Your task to perform on an android device: find which apps use the phone's location Image 0: 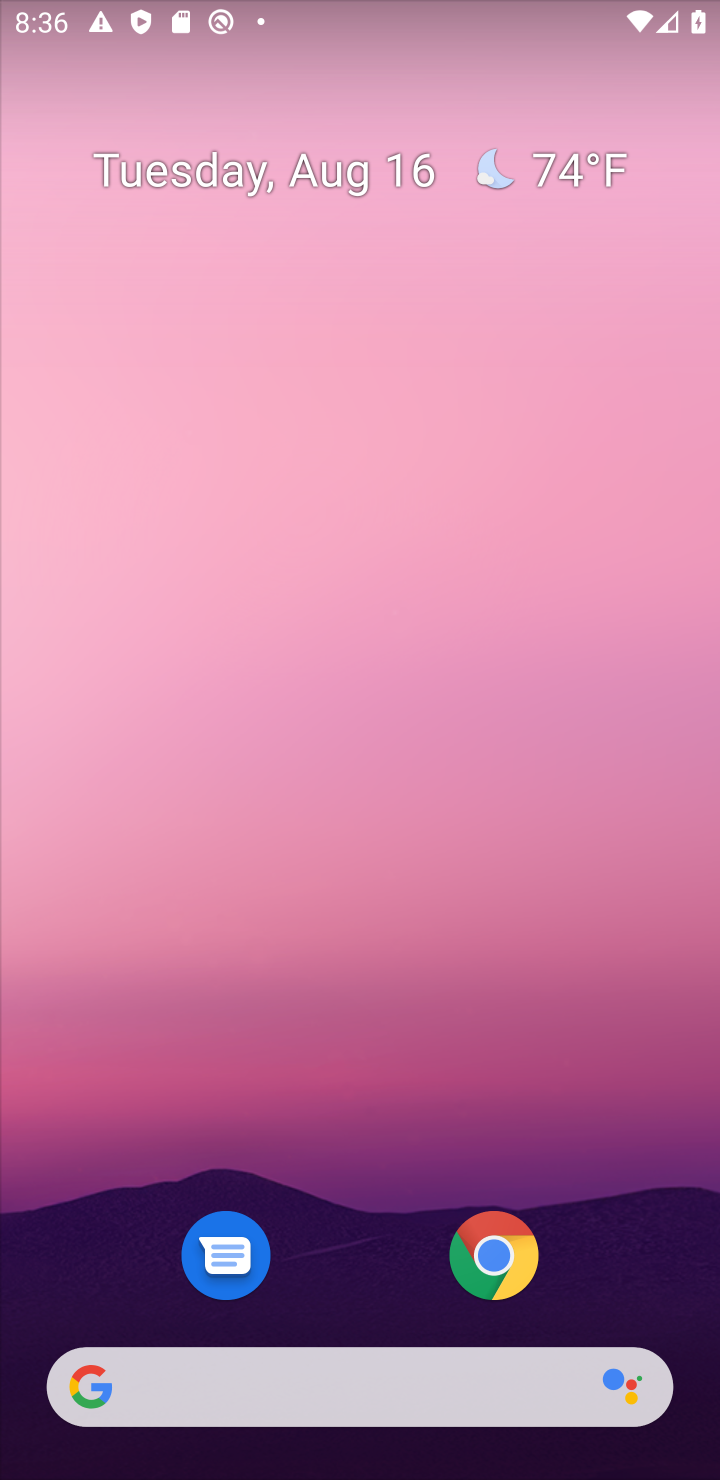
Step 0: drag from (388, 1339) to (500, 448)
Your task to perform on an android device: find which apps use the phone's location Image 1: 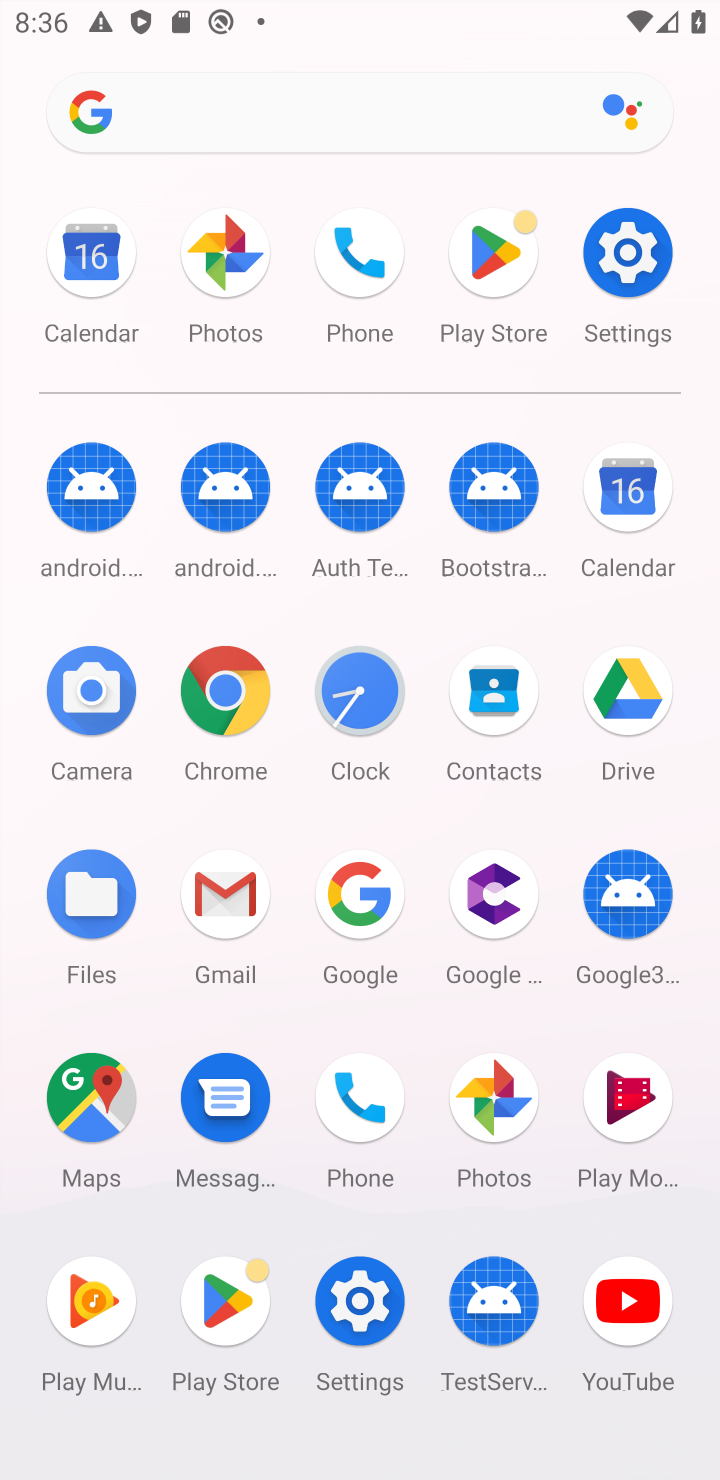
Step 1: click (333, 1302)
Your task to perform on an android device: find which apps use the phone's location Image 2: 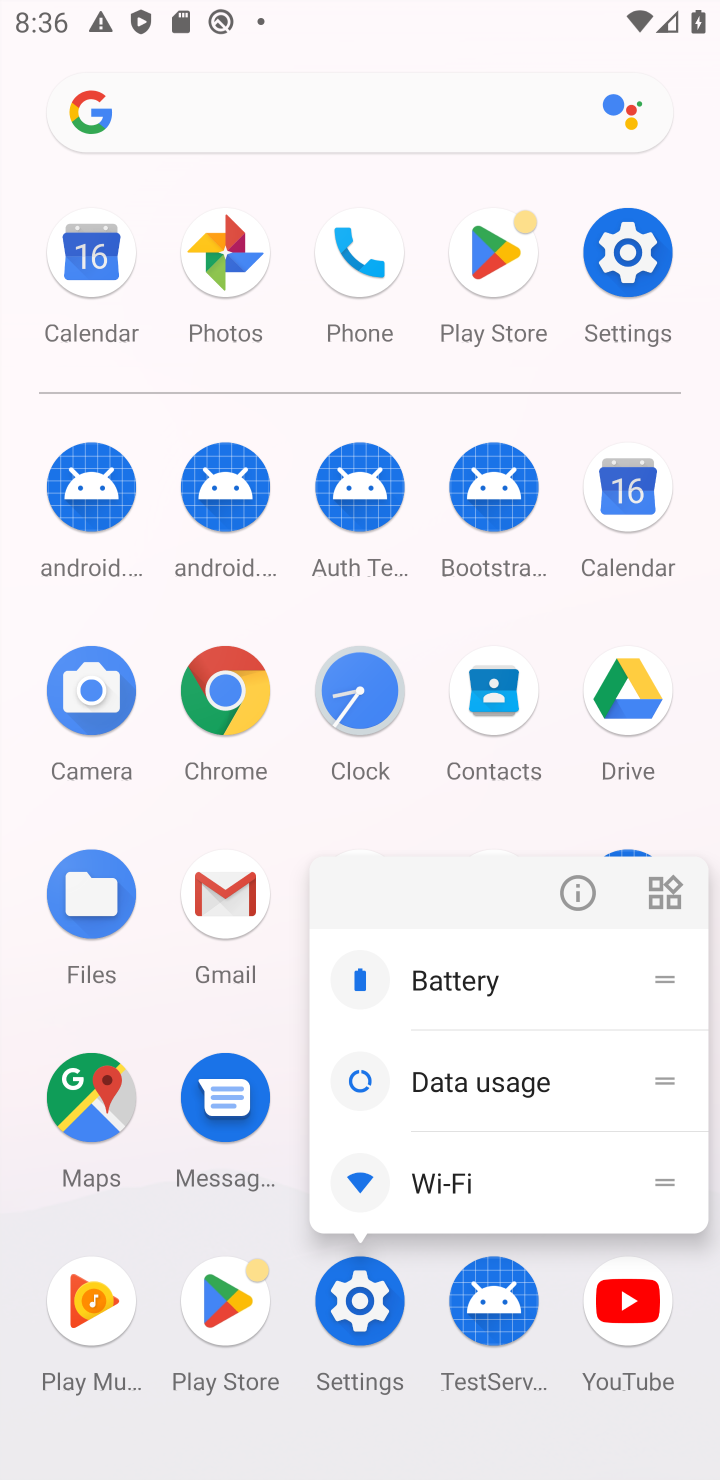
Step 2: click (333, 1302)
Your task to perform on an android device: find which apps use the phone's location Image 3: 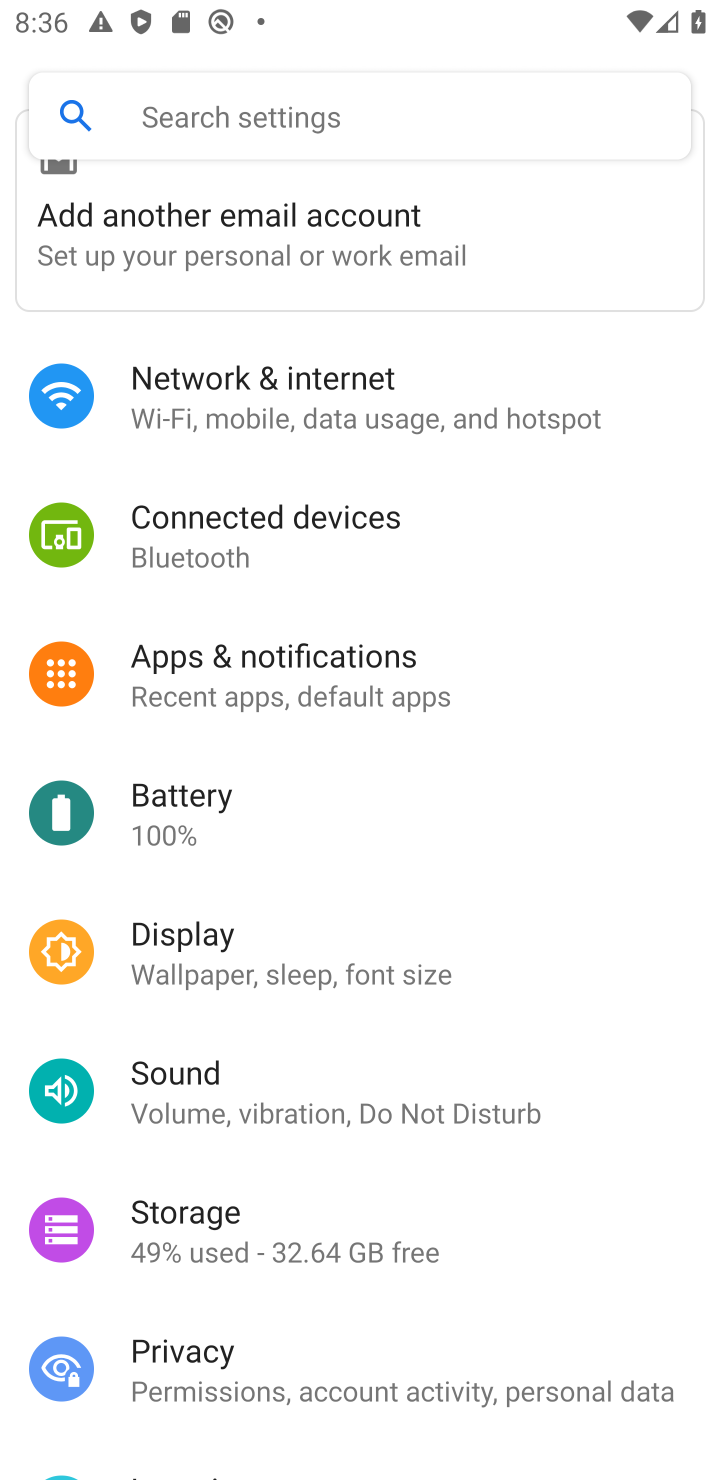
Step 3: drag from (334, 1237) to (447, 448)
Your task to perform on an android device: find which apps use the phone's location Image 4: 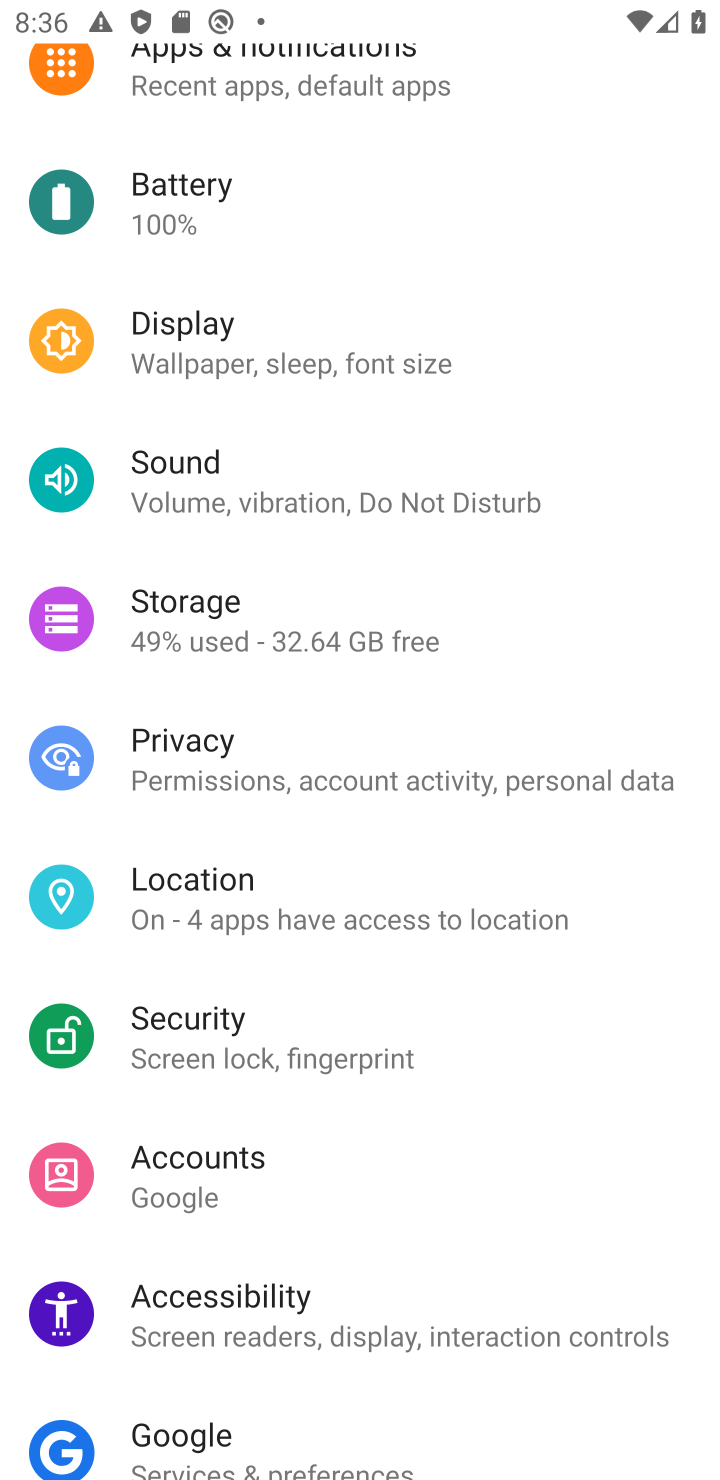
Step 4: click (318, 914)
Your task to perform on an android device: find which apps use the phone's location Image 5: 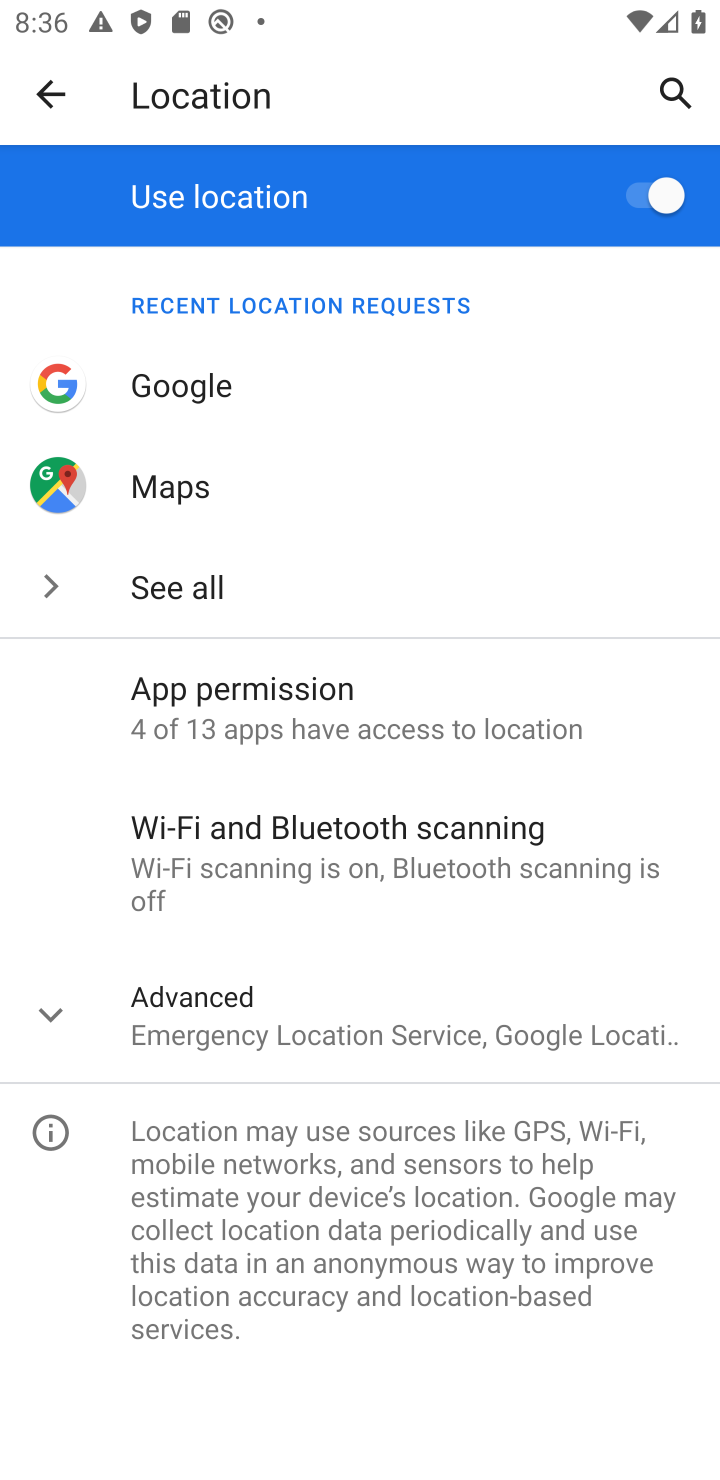
Step 5: click (312, 1001)
Your task to perform on an android device: find which apps use the phone's location Image 6: 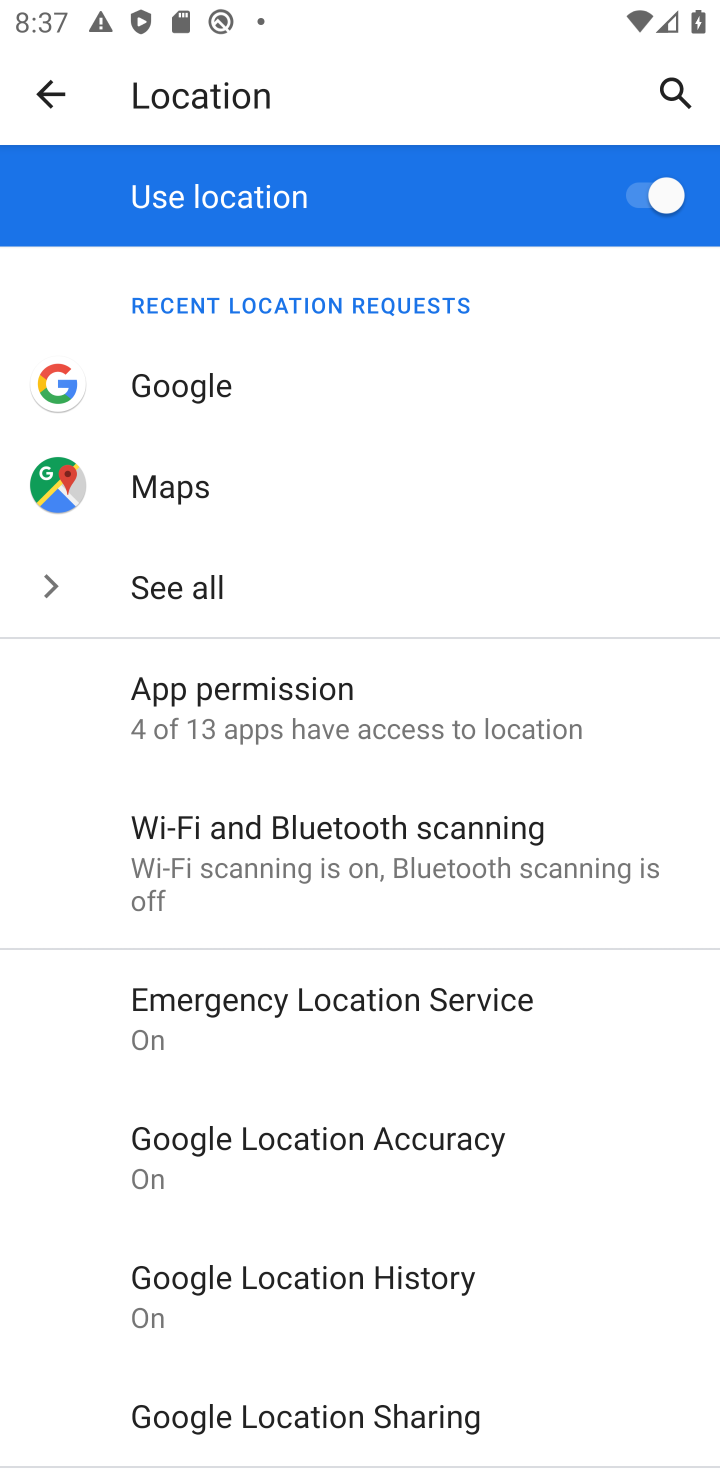
Step 6: click (225, 710)
Your task to perform on an android device: find which apps use the phone's location Image 7: 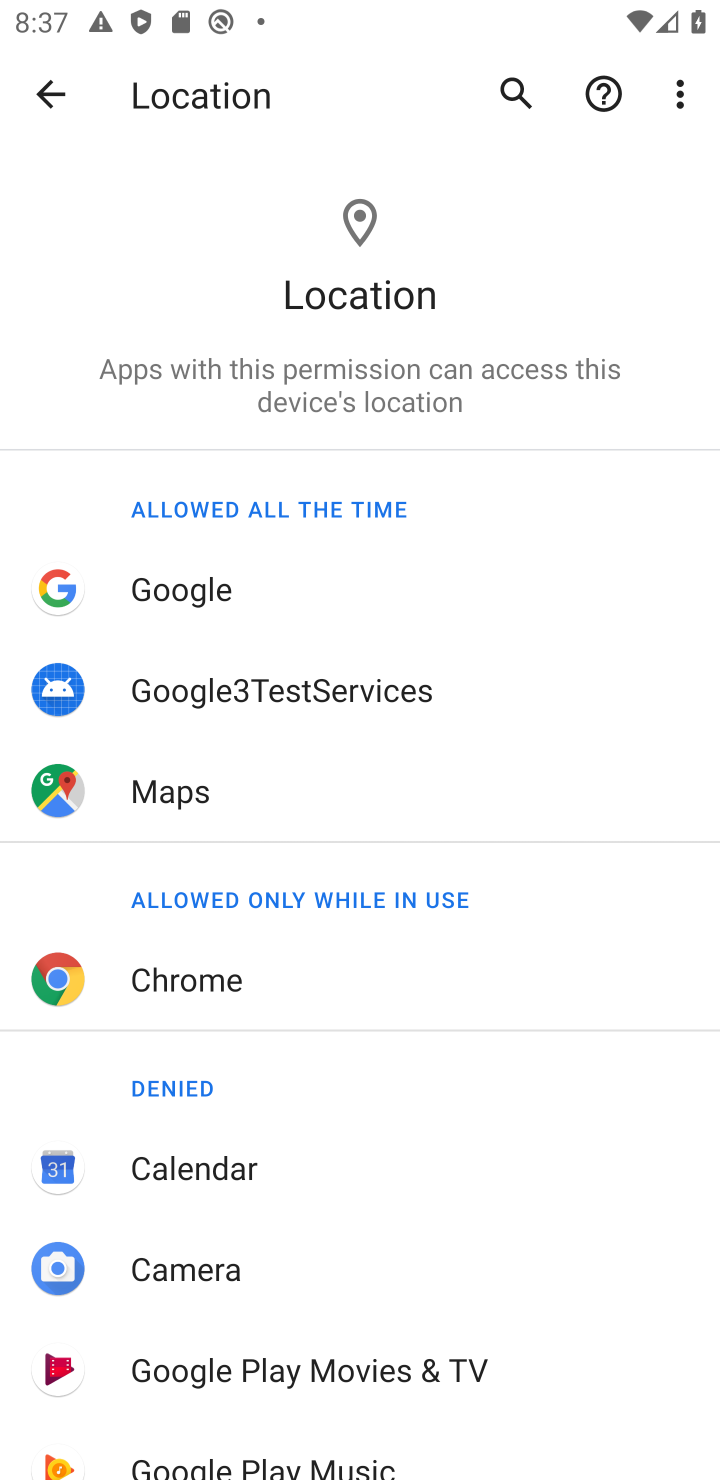
Step 7: task complete